Your task to perform on an android device: toggle translation in the chrome app Image 0: 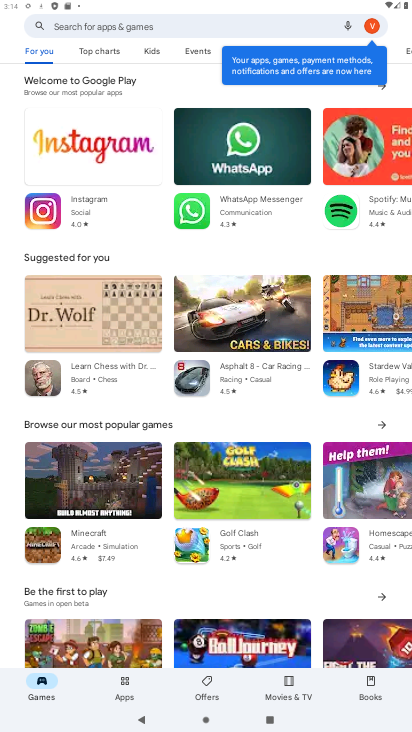
Step 0: press home button
Your task to perform on an android device: toggle translation in the chrome app Image 1: 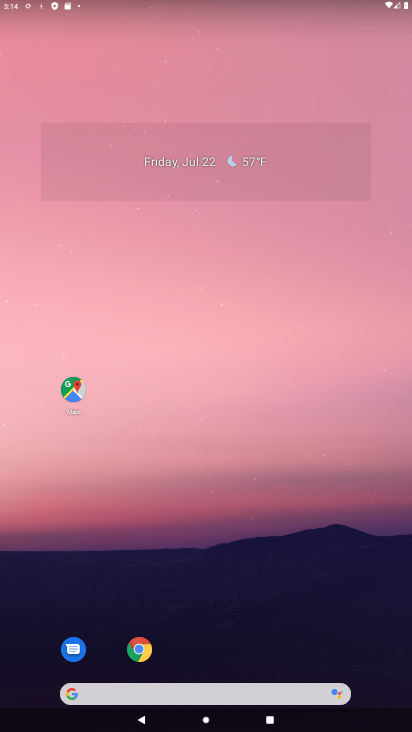
Step 1: click (134, 652)
Your task to perform on an android device: toggle translation in the chrome app Image 2: 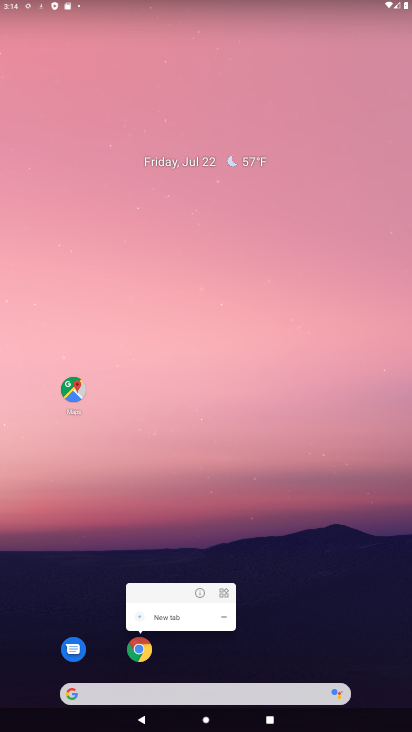
Step 2: click (141, 644)
Your task to perform on an android device: toggle translation in the chrome app Image 3: 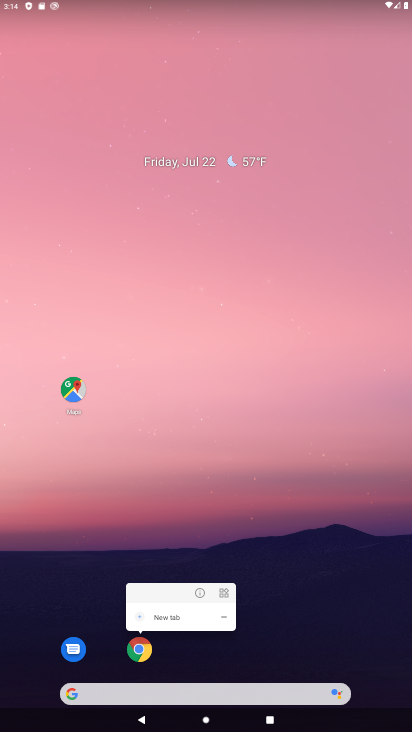
Step 3: click (130, 654)
Your task to perform on an android device: toggle translation in the chrome app Image 4: 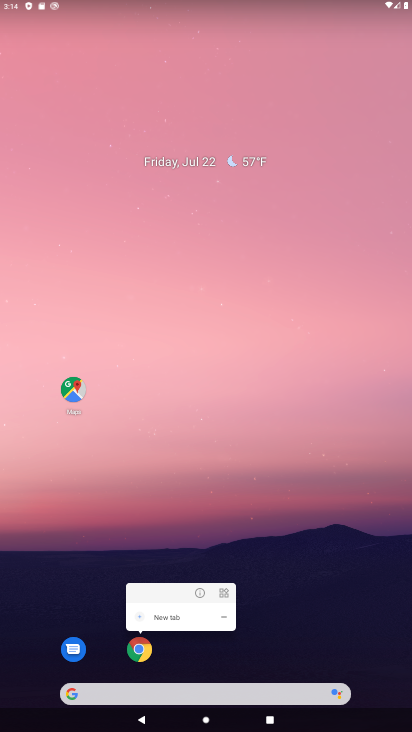
Step 4: task complete